Your task to perform on an android device: Is it going to rain today? Image 0: 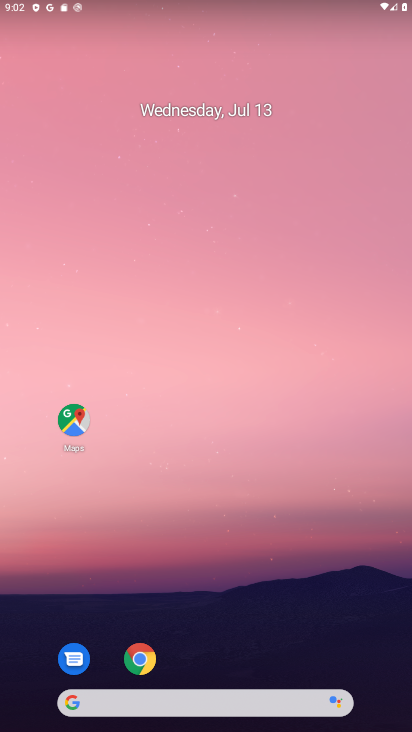
Step 0: drag from (274, 609) to (274, 105)
Your task to perform on an android device: Is it going to rain today? Image 1: 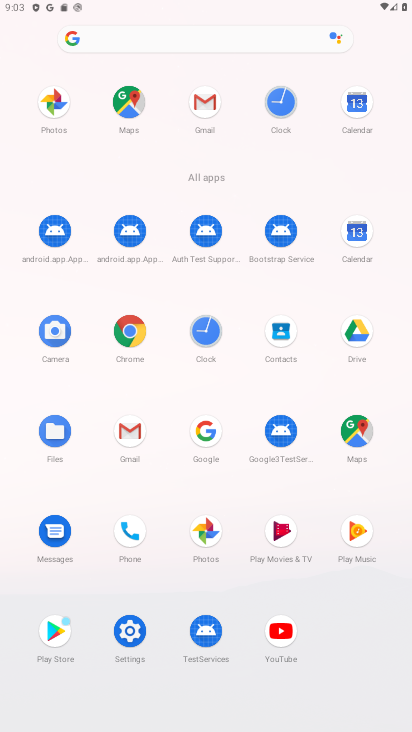
Step 1: click (132, 335)
Your task to perform on an android device: Is it going to rain today? Image 2: 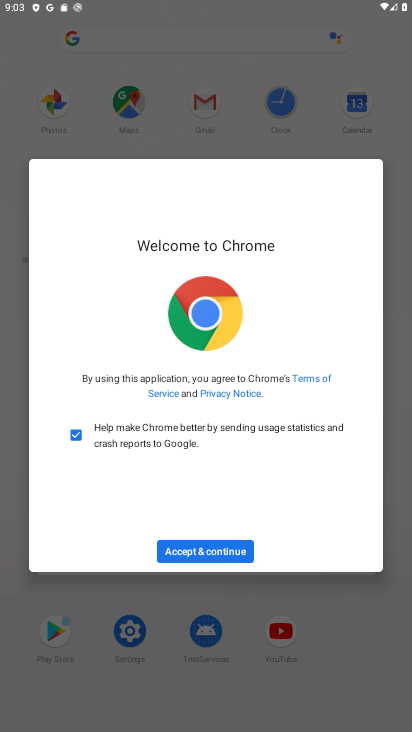
Step 2: click (183, 540)
Your task to perform on an android device: Is it going to rain today? Image 3: 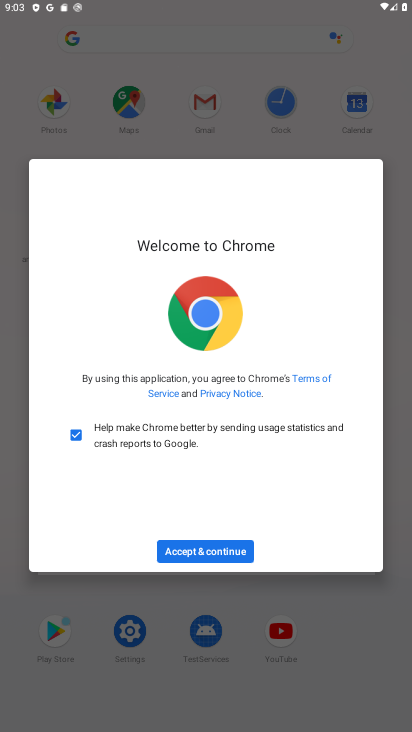
Step 3: click (188, 549)
Your task to perform on an android device: Is it going to rain today? Image 4: 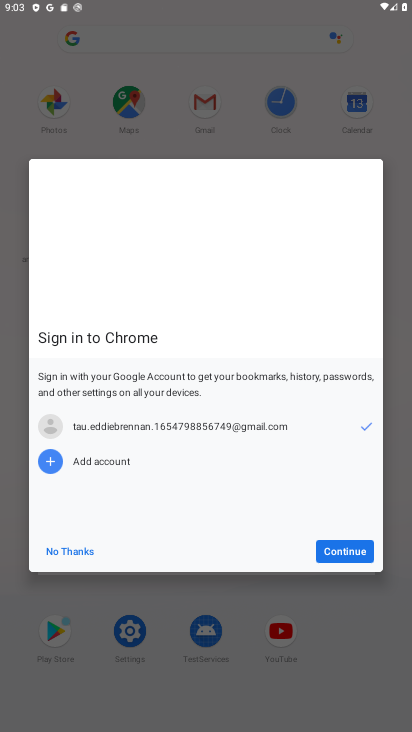
Step 4: click (337, 548)
Your task to perform on an android device: Is it going to rain today? Image 5: 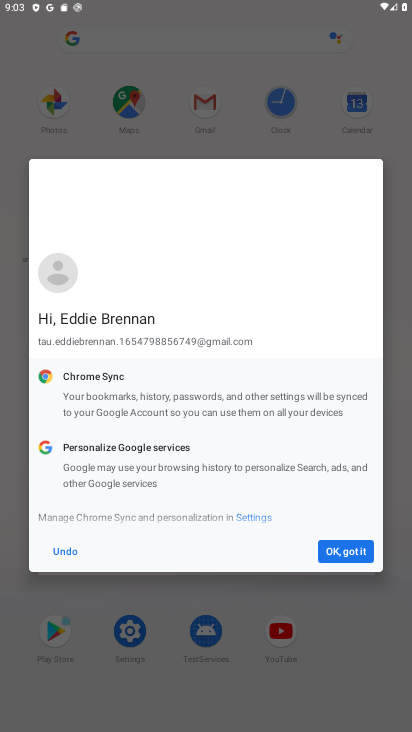
Step 5: click (337, 548)
Your task to perform on an android device: Is it going to rain today? Image 6: 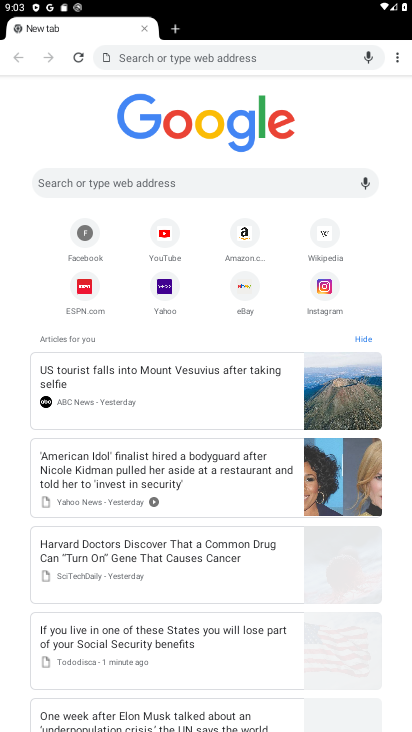
Step 6: click (204, 172)
Your task to perform on an android device: Is it going to rain today? Image 7: 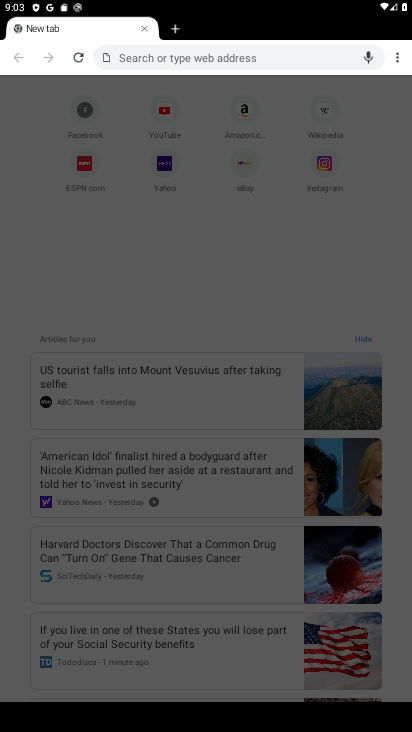
Step 7: type "Is it going to rain today "
Your task to perform on an android device: Is it going to rain today? Image 8: 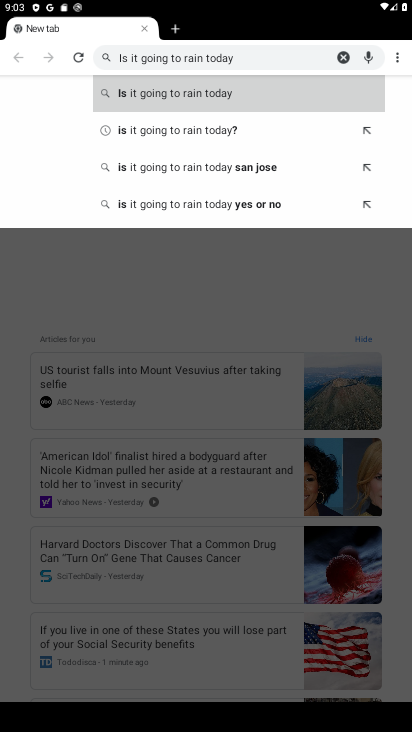
Step 8: click (209, 87)
Your task to perform on an android device: Is it going to rain today? Image 9: 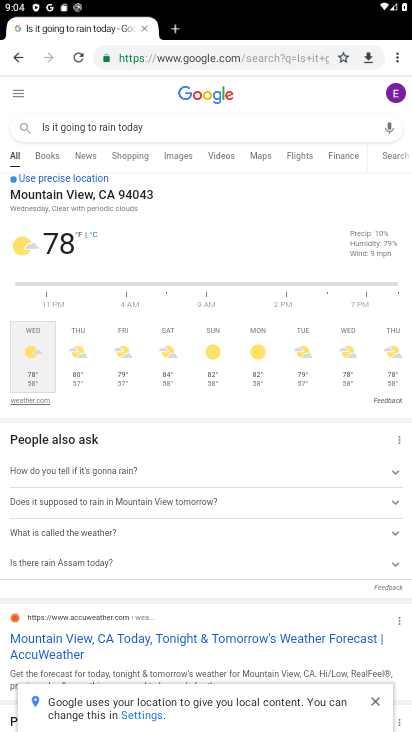
Step 9: task complete